Your task to perform on an android device: add a contact in the contacts app Image 0: 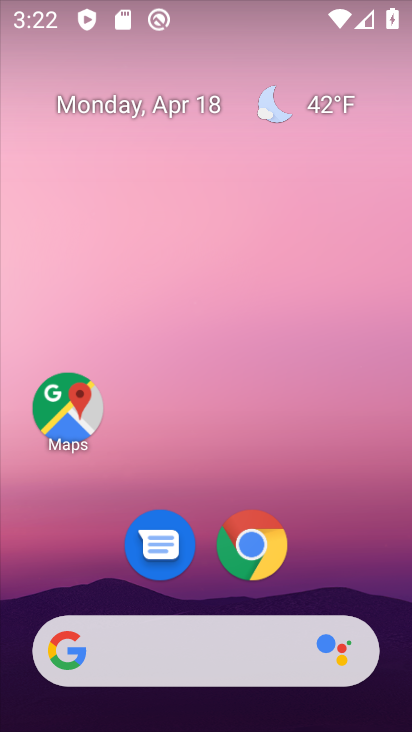
Step 0: drag from (318, 511) to (322, 89)
Your task to perform on an android device: add a contact in the contacts app Image 1: 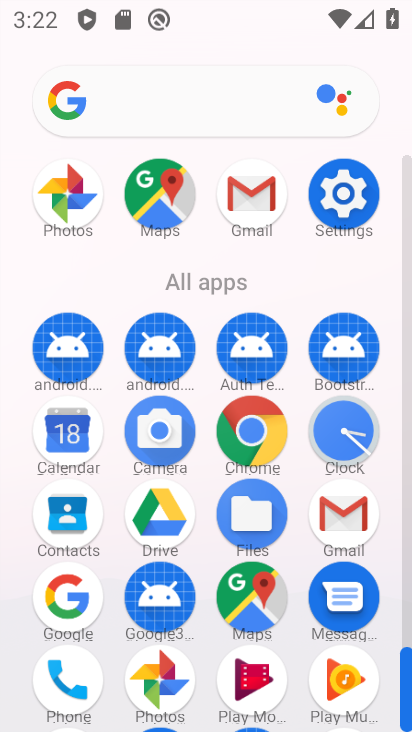
Step 1: click (66, 524)
Your task to perform on an android device: add a contact in the contacts app Image 2: 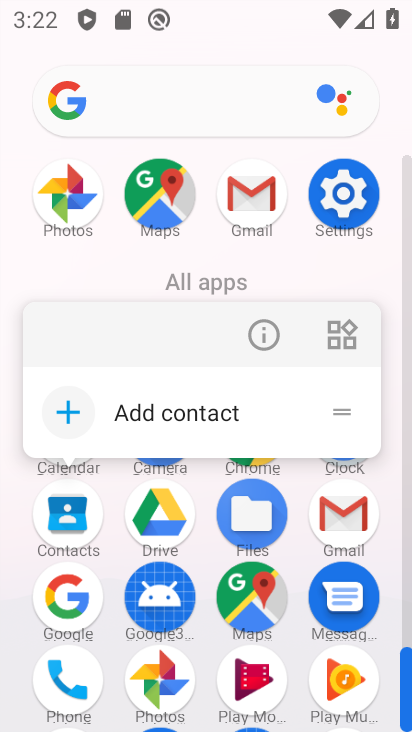
Step 2: click (68, 525)
Your task to perform on an android device: add a contact in the contacts app Image 3: 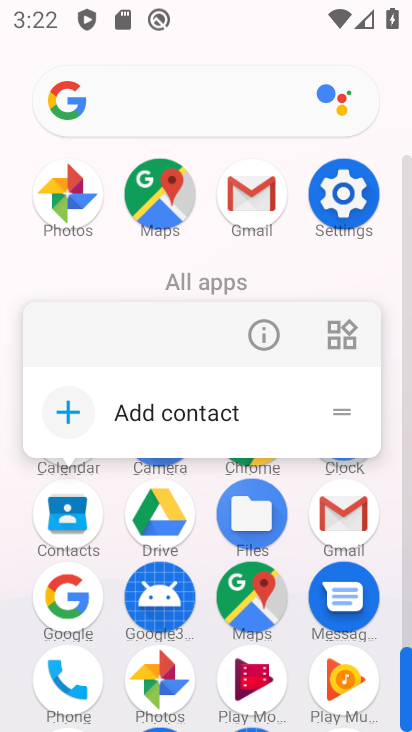
Step 3: click (68, 516)
Your task to perform on an android device: add a contact in the contacts app Image 4: 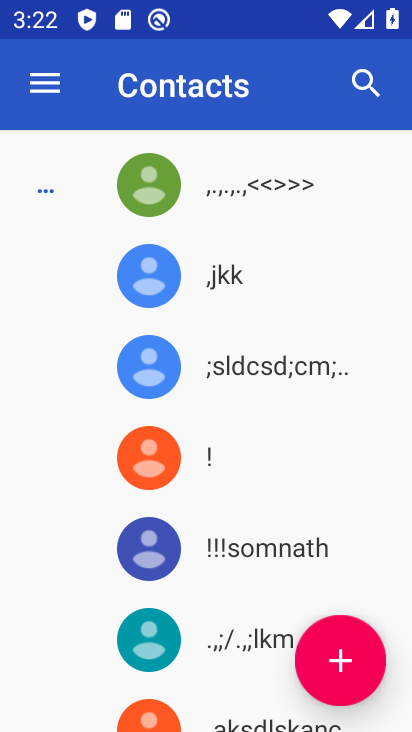
Step 4: click (335, 671)
Your task to perform on an android device: add a contact in the contacts app Image 5: 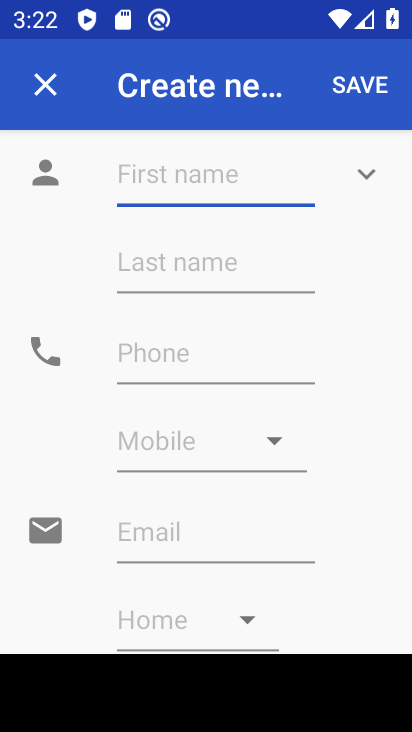
Step 5: click (213, 181)
Your task to perform on an android device: add a contact in the contacts app Image 6: 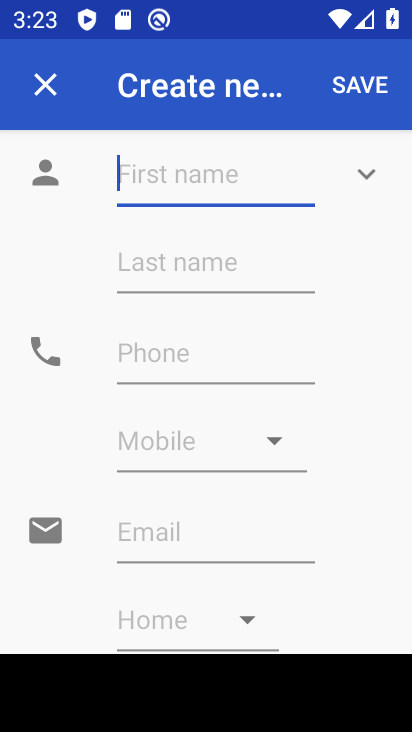
Step 6: type "lol"
Your task to perform on an android device: add a contact in the contacts app Image 7: 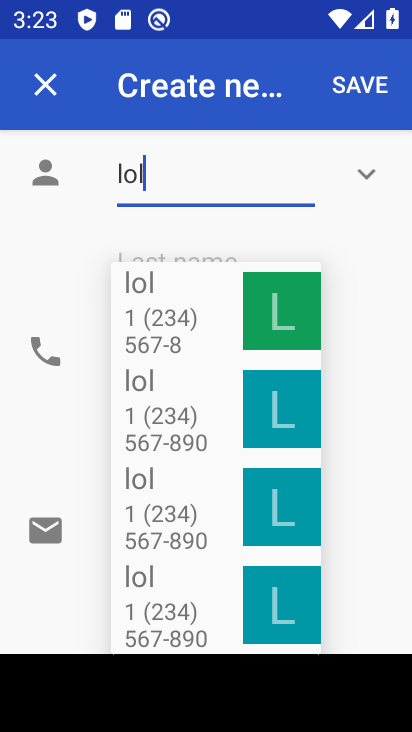
Step 7: click (394, 367)
Your task to perform on an android device: add a contact in the contacts app Image 8: 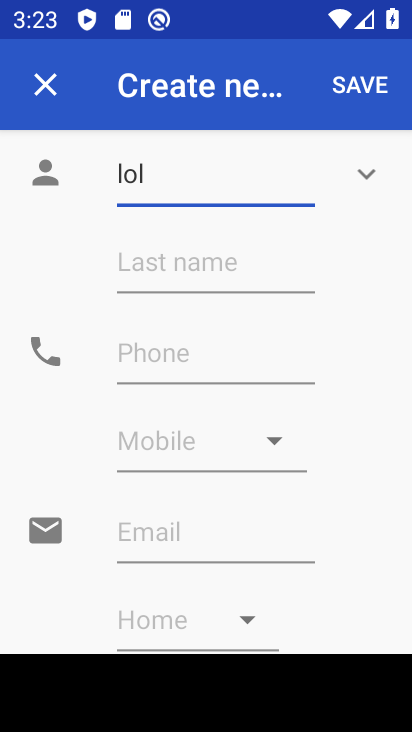
Step 8: click (237, 367)
Your task to perform on an android device: add a contact in the contacts app Image 9: 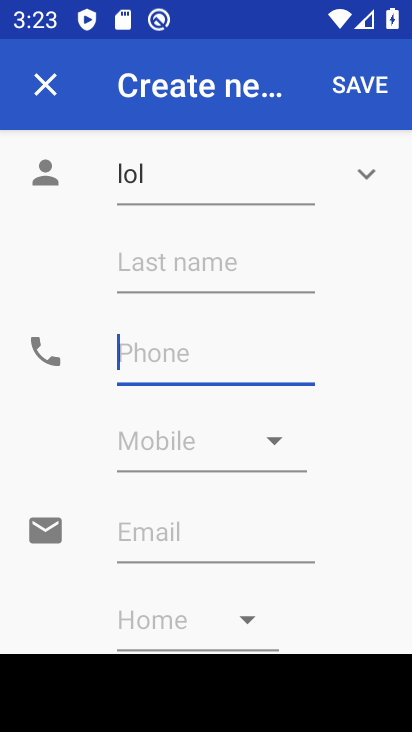
Step 9: type "123456789"
Your task to perform on an android device: add a contact in the contacts app Image 10: 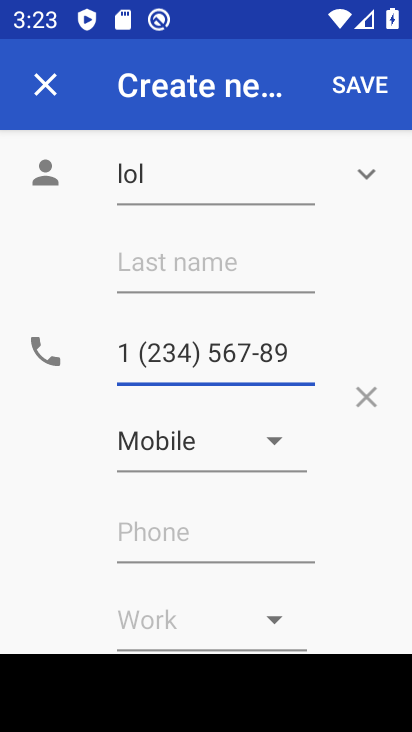
Step 10: click (349, 88)
Your task to perform on an android device: add a contact in the contacts app Image 11: 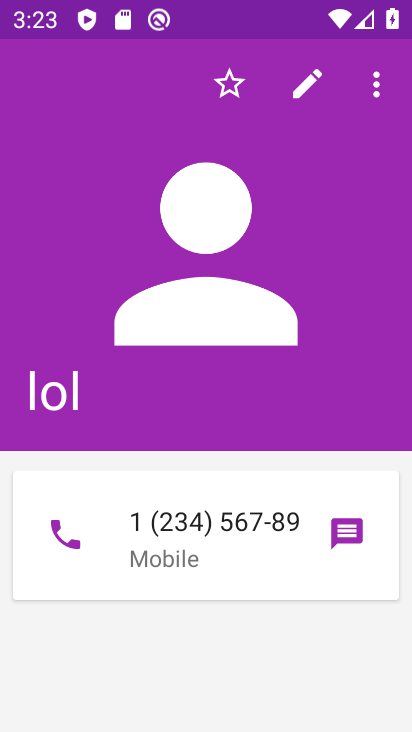
Step 11: task complete